Your task to perform on an android device: see tabs open on other devices in the chrome app Image 0: 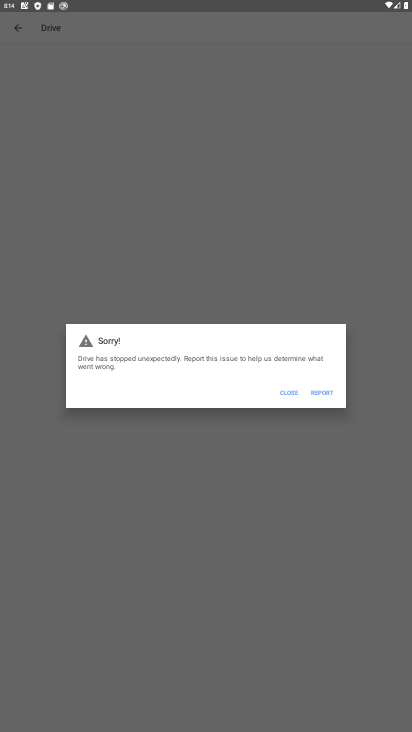
Step 0: press home button
Your task to perform on an android device: see tabs open on other devices in the chrome app Image 1: 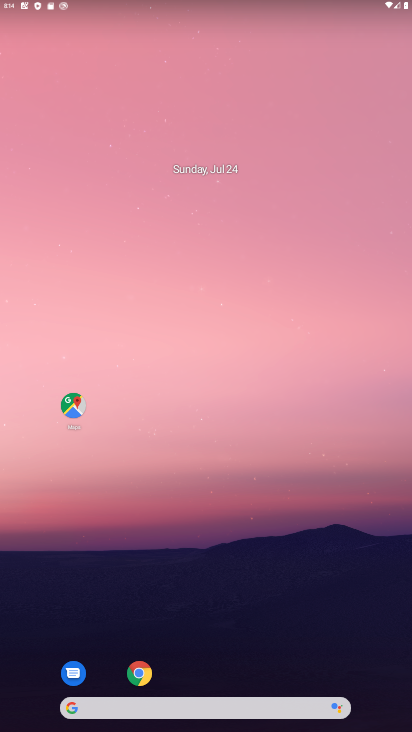
Step 1: click (132, 674)
Your task to perform on an android device: see tabs open on other devices in the chrome app Image 2: 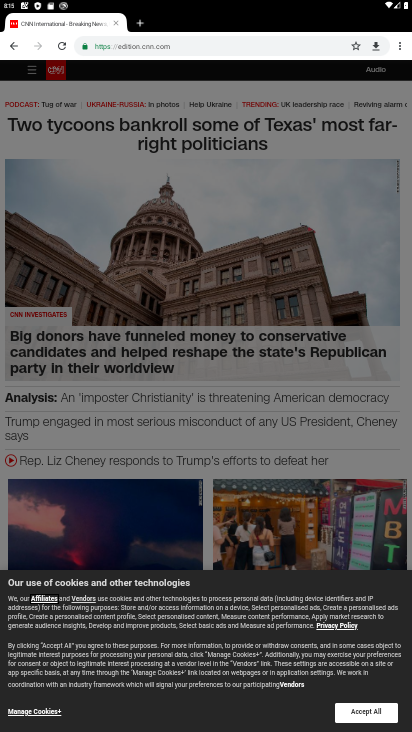
Step 2: click (401, 49)
Your task to perform on an android device: see tabs open on other devices in the chrome app Image 3: 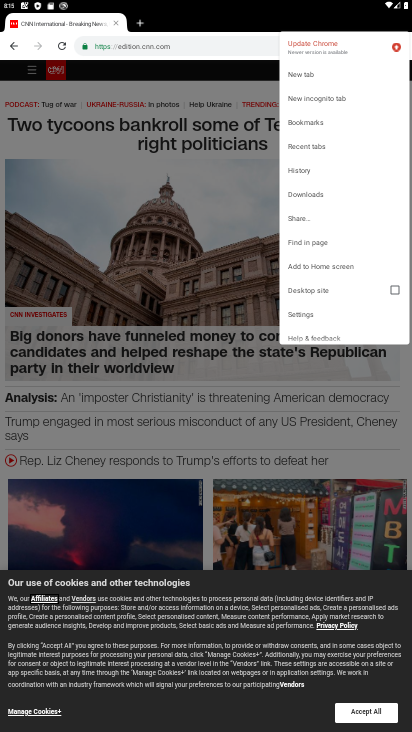
Step 3: click (300, 152)
Your task to perform on an android device: see tabs open on other devices in the chrome app Image 4: 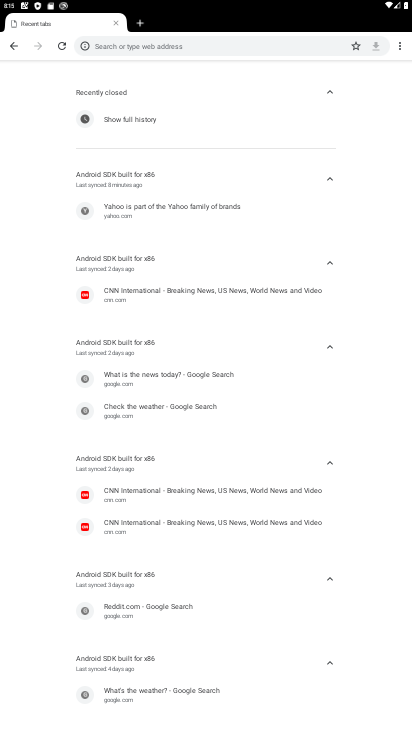
Step 4: task complete